Your task to perform on an android device: Open Yahoo.com Image 0: 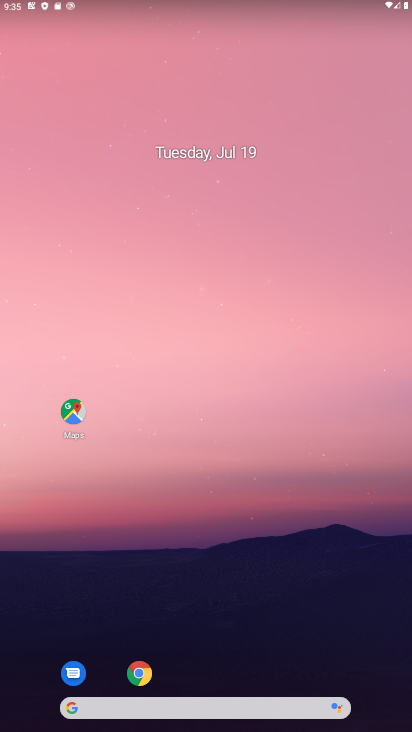
Step 0: click (144, 667)
Your task to perform on an android device: Open Yahoo.com Image 1: 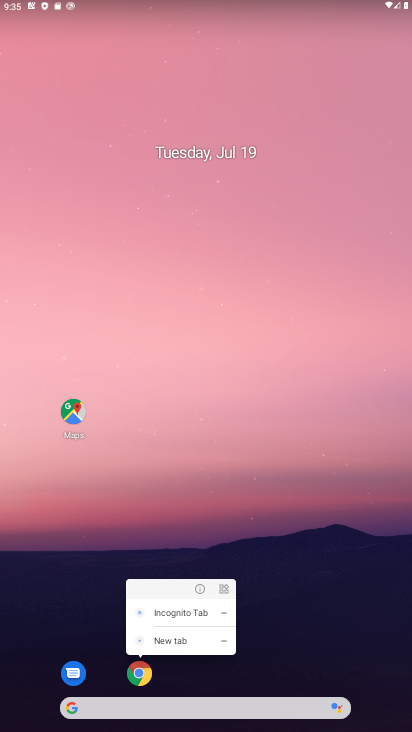
Step 1: click (144, 667)
Your task to perform on an android device: Open Yahoo.com Image 2: 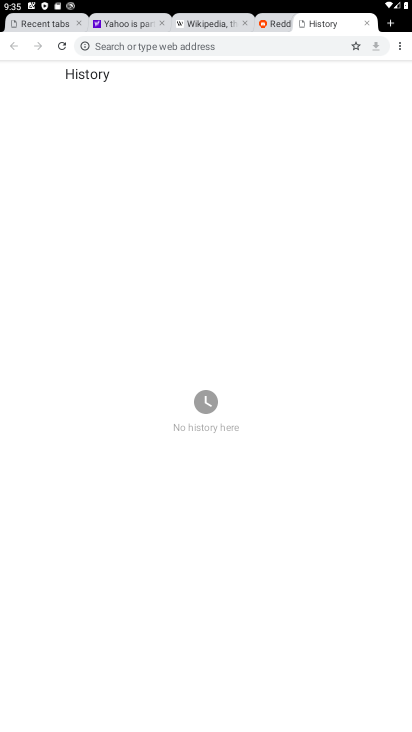
Step 2: click (384, 25)
Your task to perform on an android device: Open Yahoo.com Image 3: 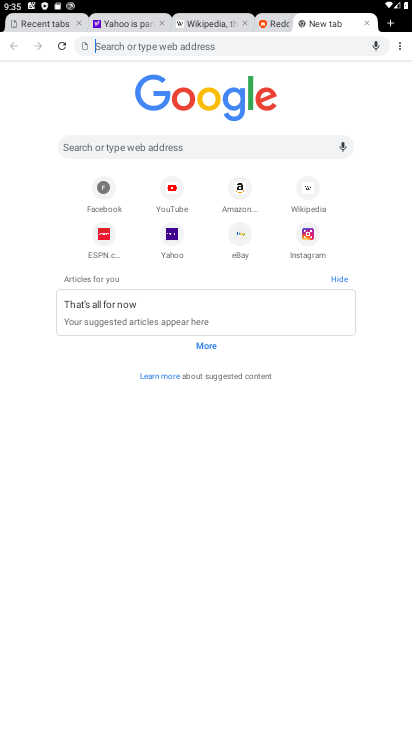
Step 3: click (170, 236)
Your task to perform on an android device: Open Yahoo.com Image 4: 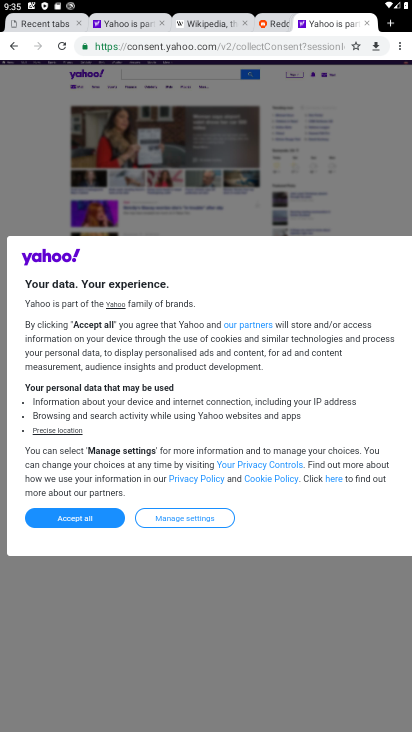
Step 4: task complete